Your task to perform on an android device: toggle notifications settings in the gmail app Image 0: 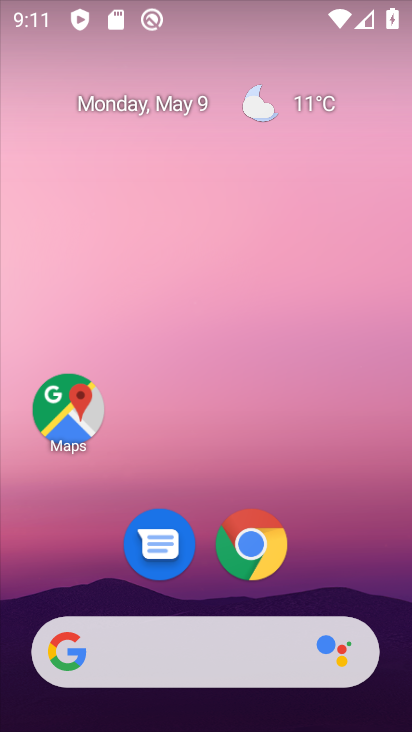
Step 0: drag from (403, 625) to (401, 308)
Your task to perform on an android device: toggle notifications settings in the gmail app Image 1: 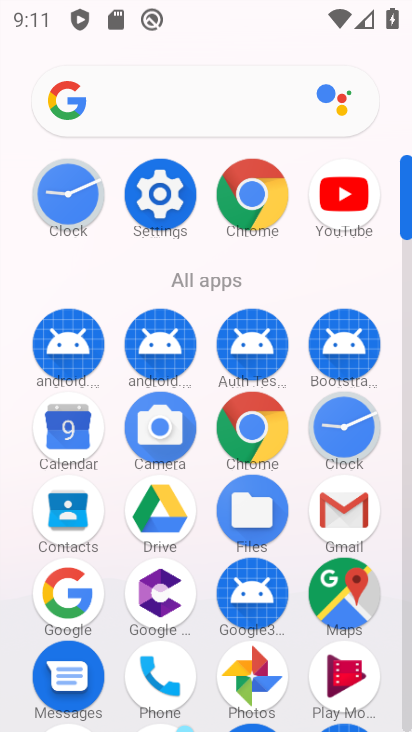
Step 1: click (356, 520)
Your task to perform on an android device: toggle notifications settings in the gmail app Image 2: 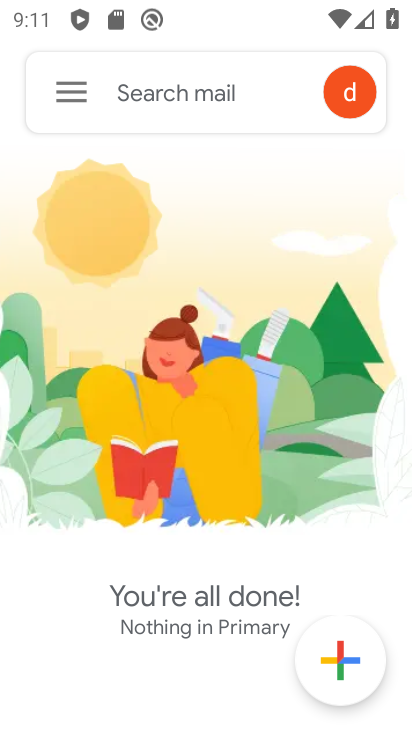
Step 2: click (64, 91)
Your task to perform on an android device: toggle notifications settings in the gmail app Image 3: 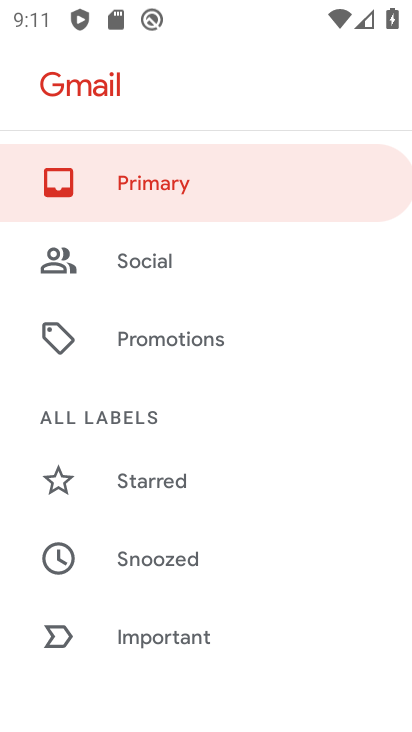
Step 3: drag from (281, 641) to (306, 449)
Your task to perform on an android device: toggle notifications settings in the gmail app Image 4: 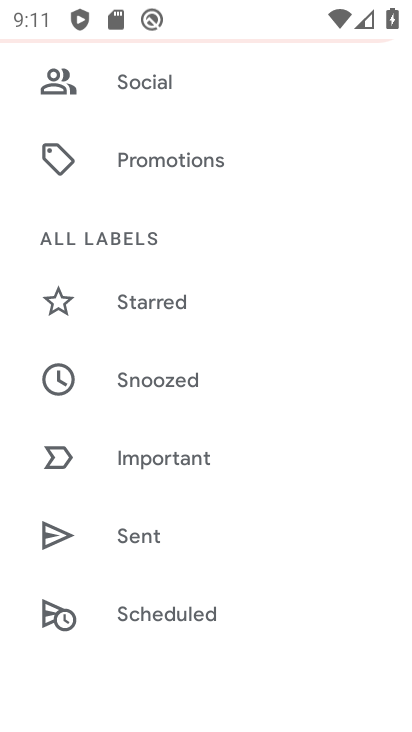
Step 4: drag from (323, 637) to (324, 367)
Your task to perform on an android device: toggle notifications settings in the gmail app Image 5: 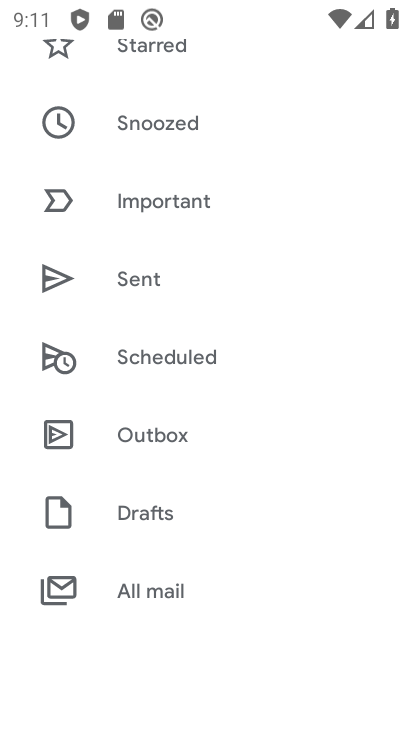
Step 5: drag from (290, 583) to (307, 372)
Your task to perform on an android device: toggle notifications settings in the gmail app Image 6: 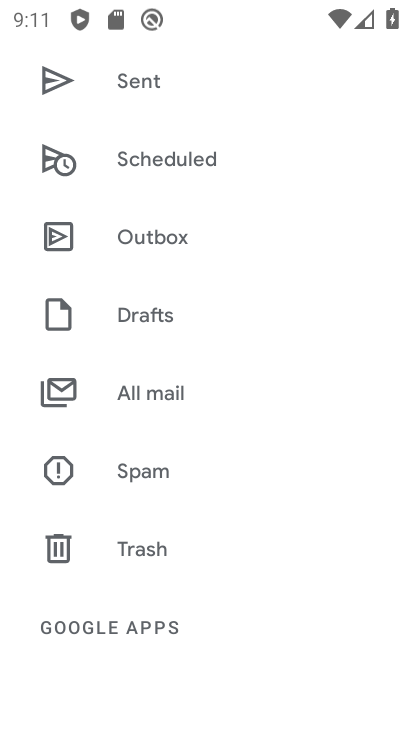
Step 6: drag from (302, 541) to (313, 276)
Your task to perform on an android device: toggle notifications settings in the gmail app Image 7: 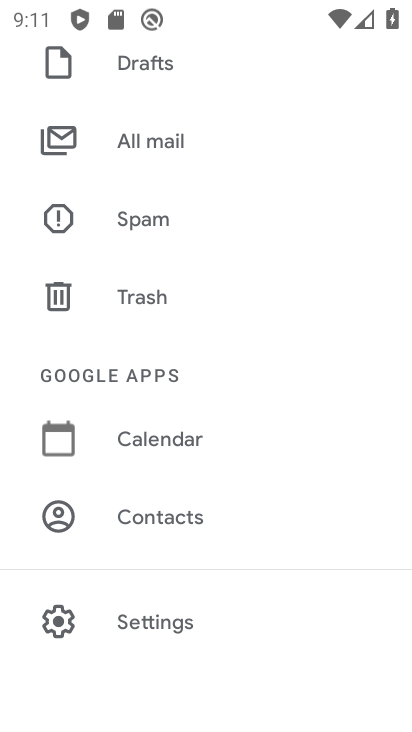
Step 7: click (150, 616)
Your task to perform on an android device: toggle notifications settings in the gmail app Image 8: 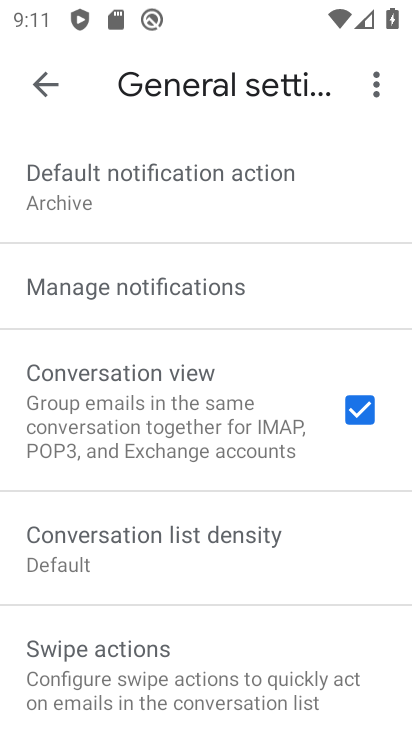
Step 8: click (97, 287)
Your task to perform on an android device: toggle notifications settings in the gmail app Image 9: 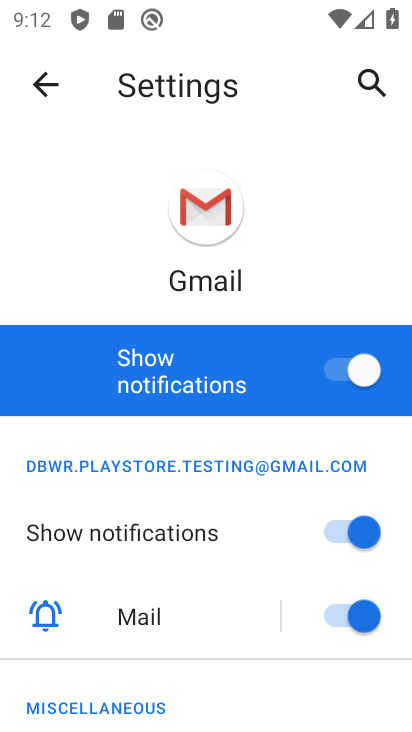
Step 9: click (341, 373)
Your task to perform on an android device: toggle notifications settings in the gmail app Image 10: 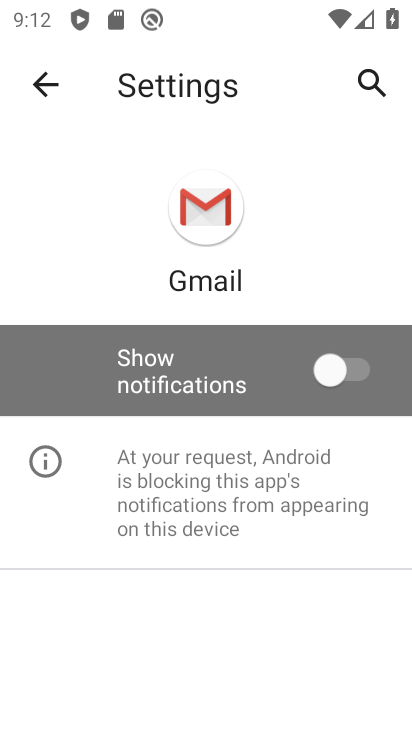
Step 10: task complete